Your task to perform on an android device: find which apps use the phone's location Image 0: 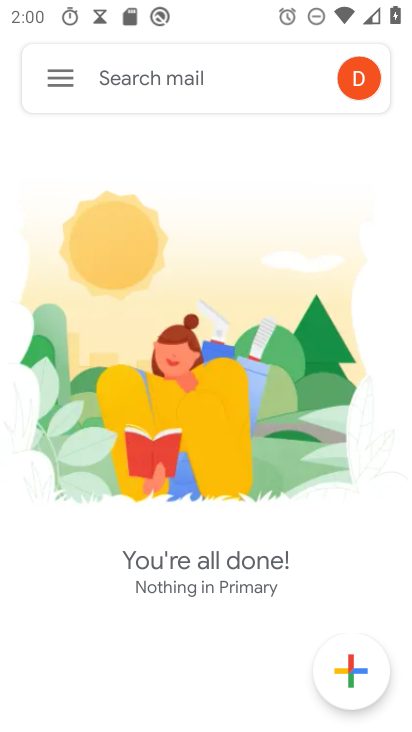
Step 0: press home button
Your task to perform on an android device: find which apps use the phone's location Image 1: 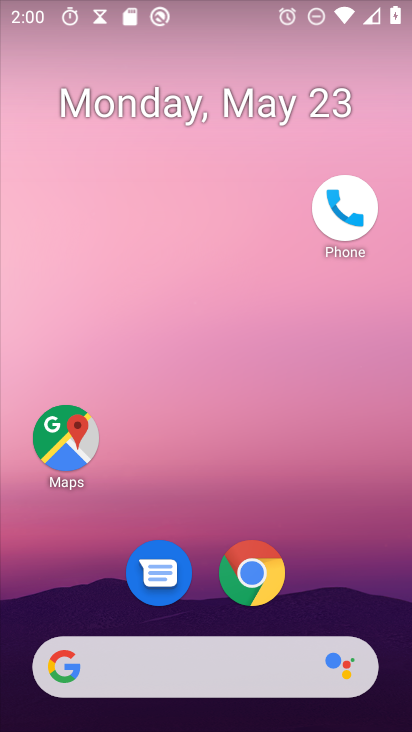
Step 1: drag from (176, 657) to (342, 31)
Your task to perform on an android device: find which apps use the phone's location Image 2: 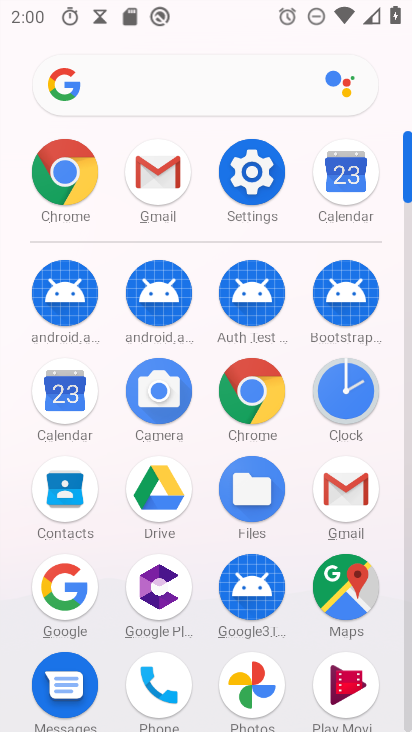
Step 2: click (247, 149)
Your task to perform on an android device: find which apps use the phone's location Image 3: 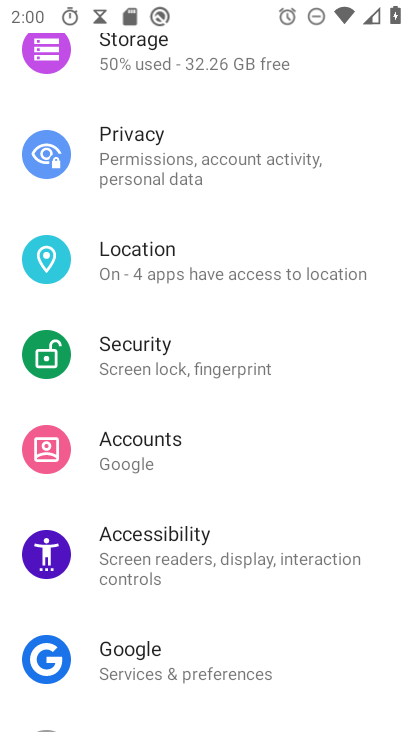
Step 3: drag from (254, 505) to (354, 82)
Your task to perform on an android device: find which apps use the phone's location Image 4: 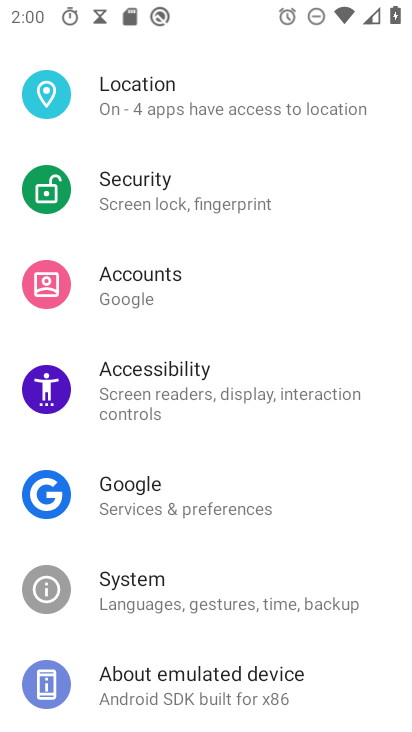
Step 4: drag from (321, 184) to (259, 630)
Your task to perform on an android device: find which apps use the phone's location Image 5: 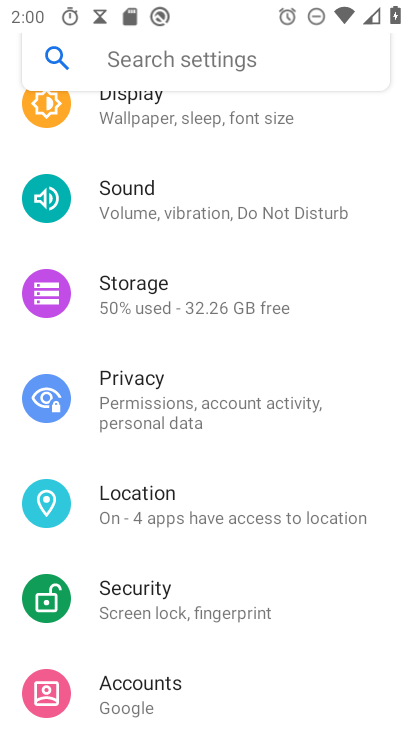
Step 5: drag from (292, 174) to (229, 624)
Your task to perform on an android device: find which apps use the phone's location Image 6: 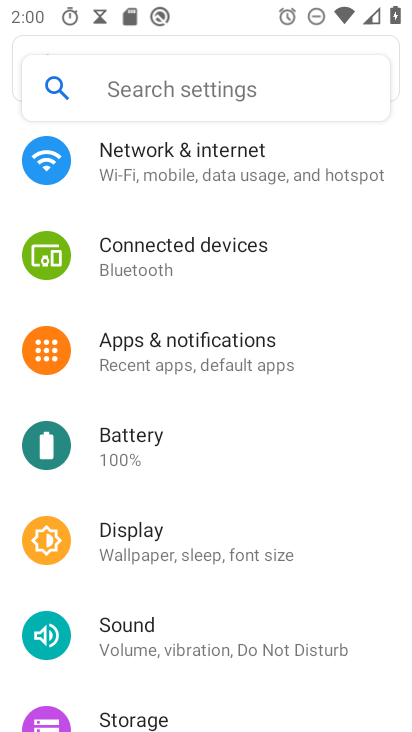
Step 6: drag from (223, 550) to (343, 152)
Your task to perform on an android device: find which apps use the phone's location Image 7: 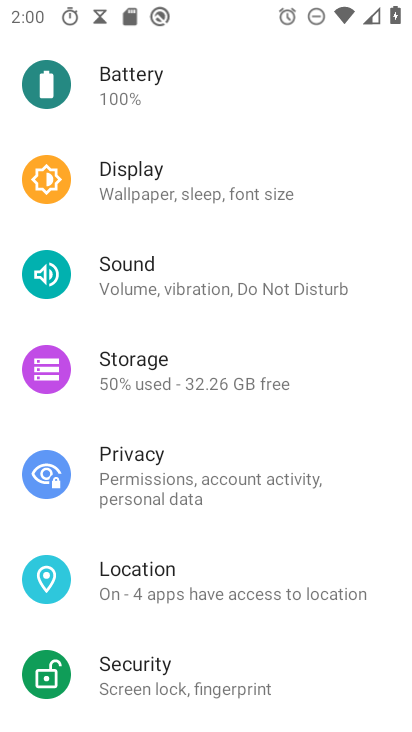
Step 7: click (173, 570)
Your task to perform on an android device: find which apps use the phone's location Image 8: 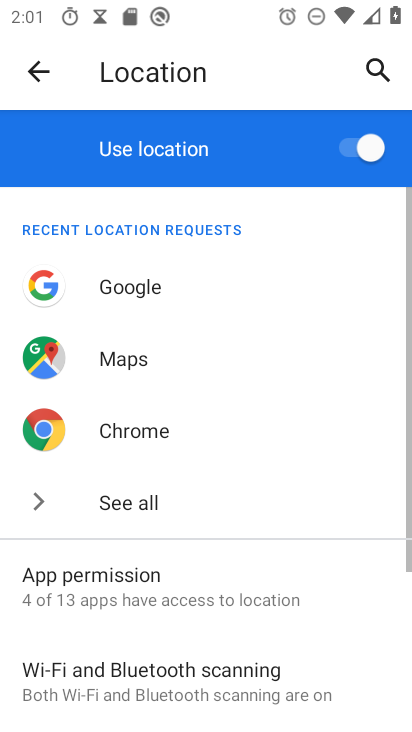
Step 8: click (131, 582)
Your task to perform on an android device: find which apps use the phone's location Image 9: 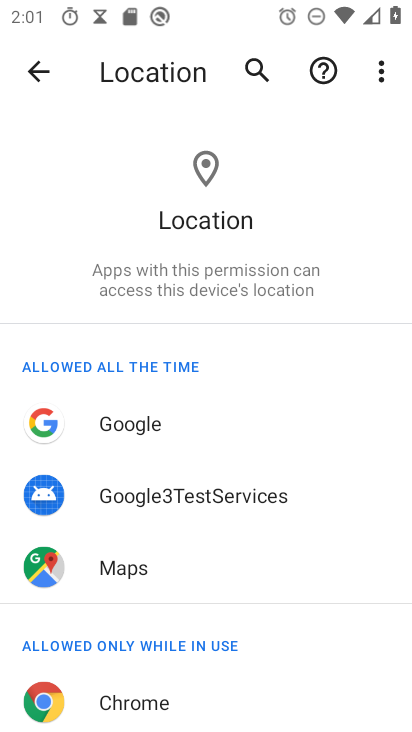
Step 9: drag from (216, 631) to (302, 114)
Your task to perform on an android device: find which apps use the phone's location Image 10: 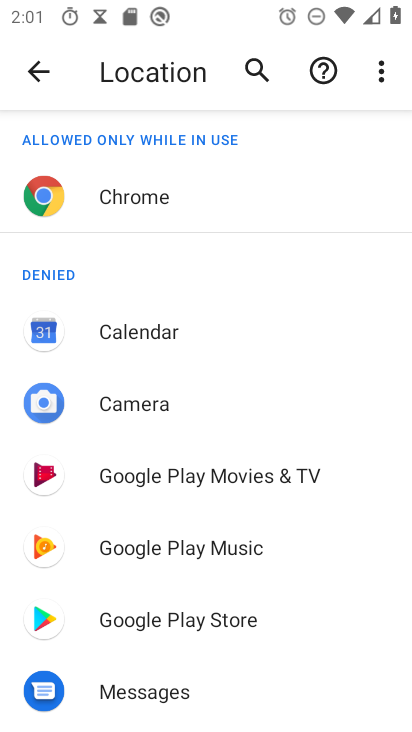
Step 10: drag from (203, 652) to (270, 335)
Your task to perform on an android device: find which apps use the phone's location Image 11: 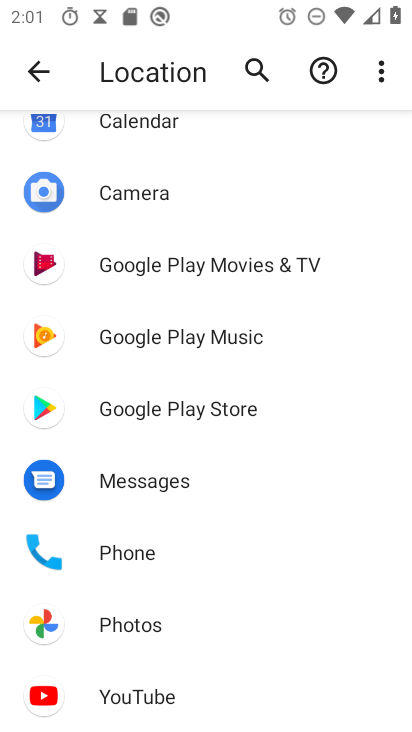
Step 11: click (156, 553)
Your task to perform on an android device: find which apps use the phone's location Image 12: 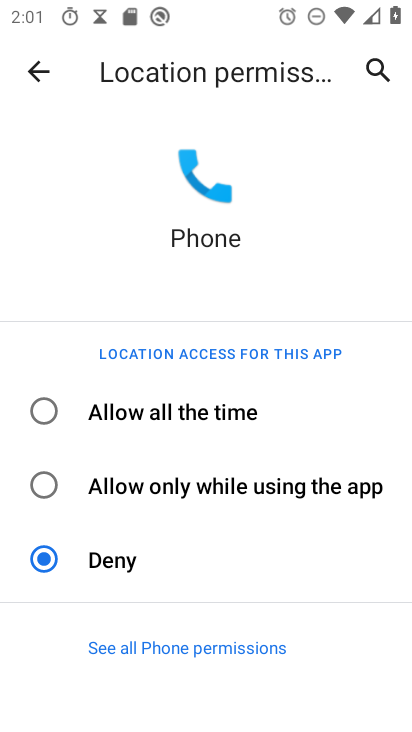
Step 12: task complete